Your task to perform on an android device: Go to settings Image 0: 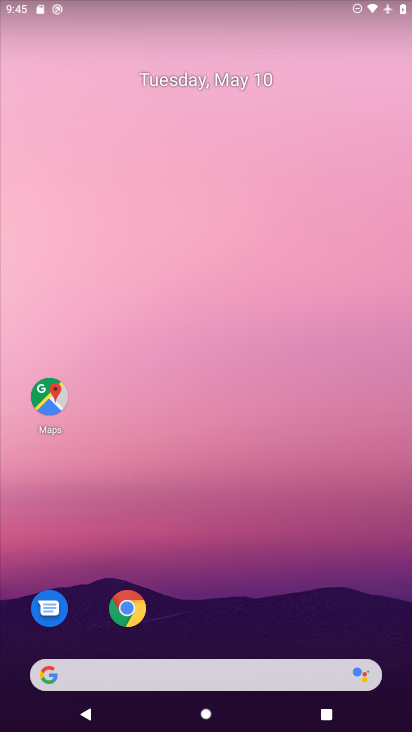
Step 0: drag from (269, 546) to (259, 221)
Your task to perform on an android device: Go to settings Image 1: 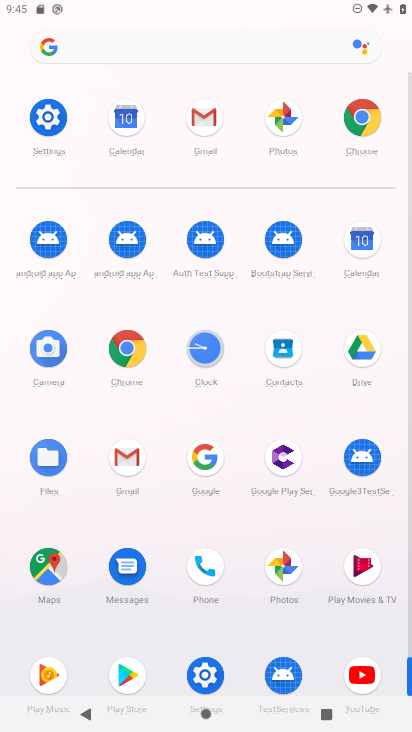
Step 1: click (46, 112)
Your task to perform on an android device: Go to settings Image 2: 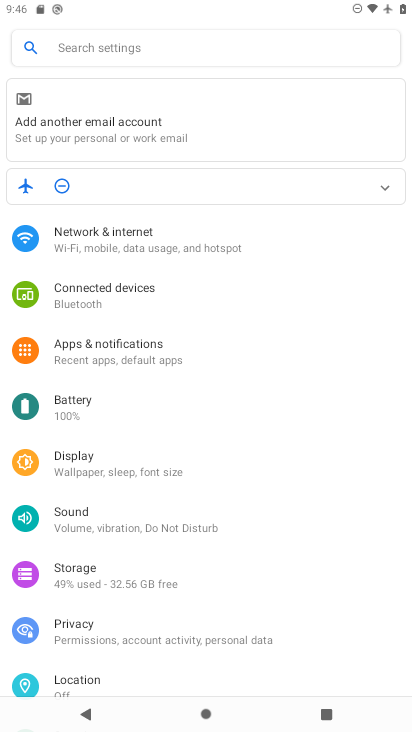
Step 2: task complete